Your task to perform on an android device: open app "Cash App" Image 0: 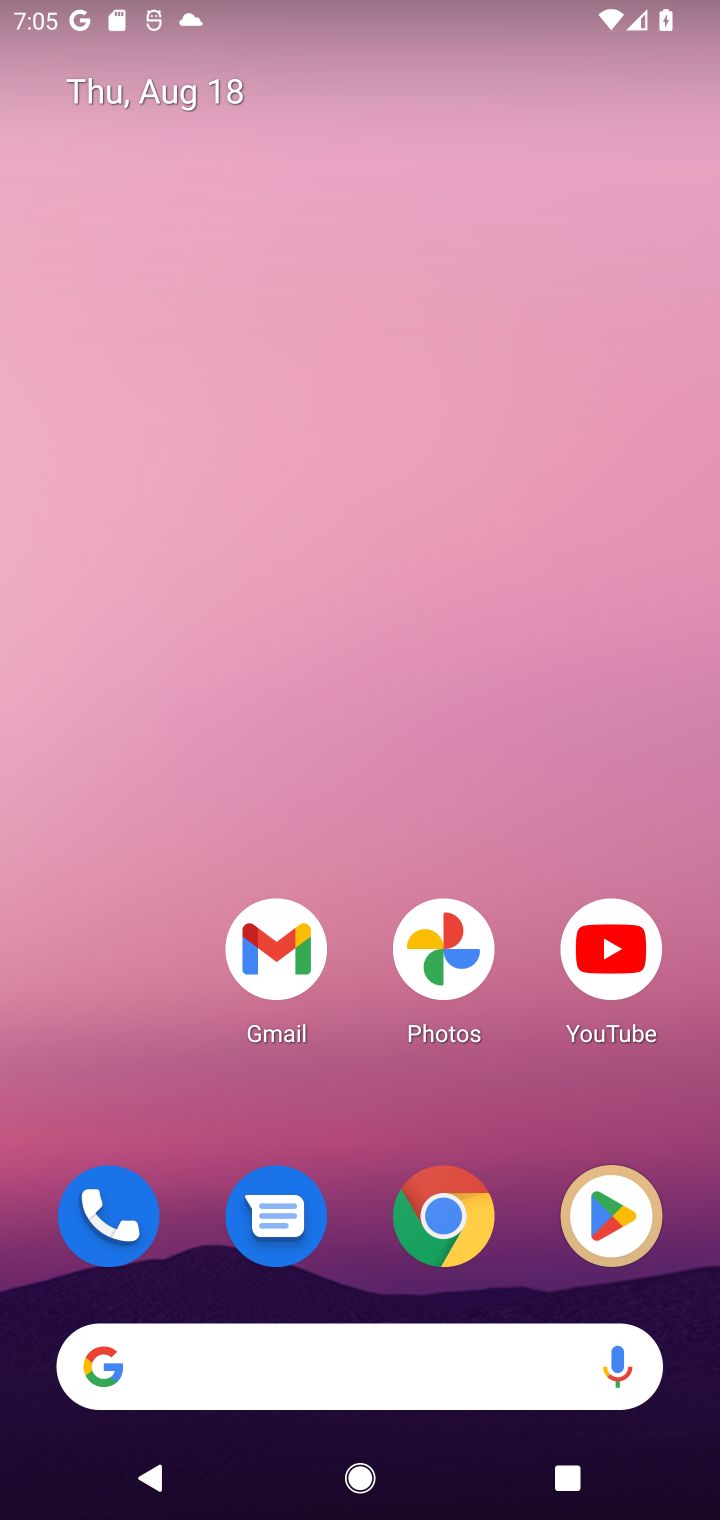
Step 0: click (610, 1211)
Your task to perform on an android device: open app "Cash App" Image 1: 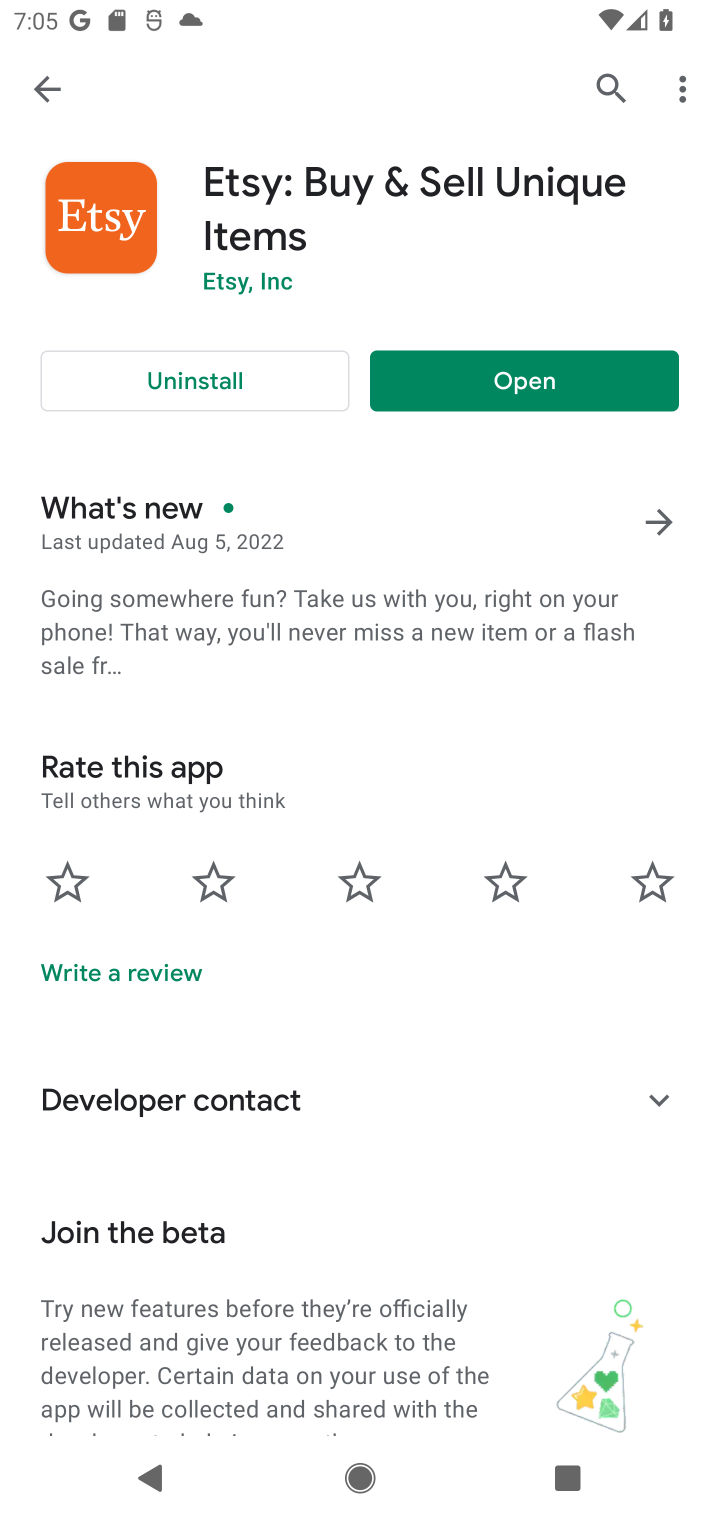
Step 1: click (600, 78)
Your task to perform on an android device: open app "Cash App" Image 2: 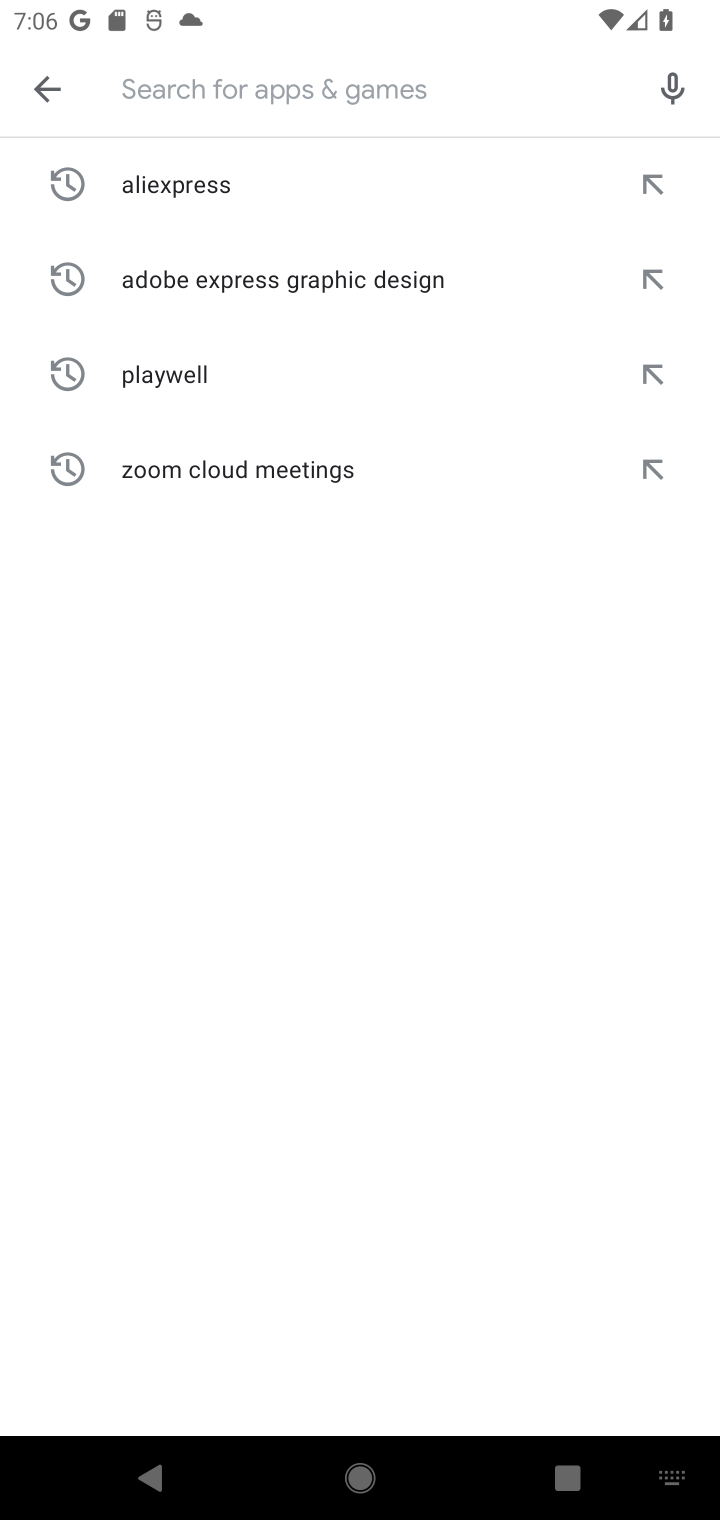
Step 2: type "Cash App"
Your task to perform on an android device: open app "Cash App" Image 3: 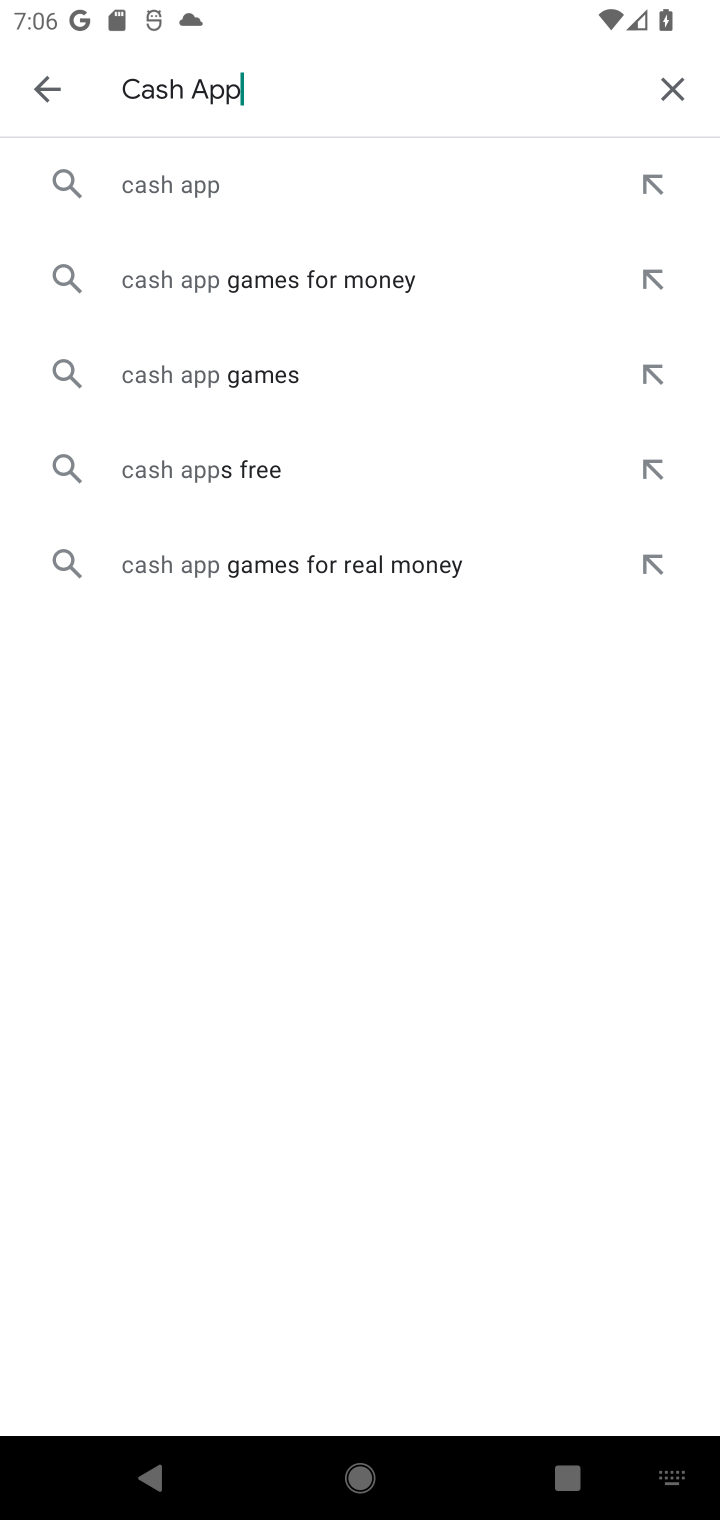
Step 3: click (174, 173)
Your task to perform on an android device: open app "Cash App" Image 4: 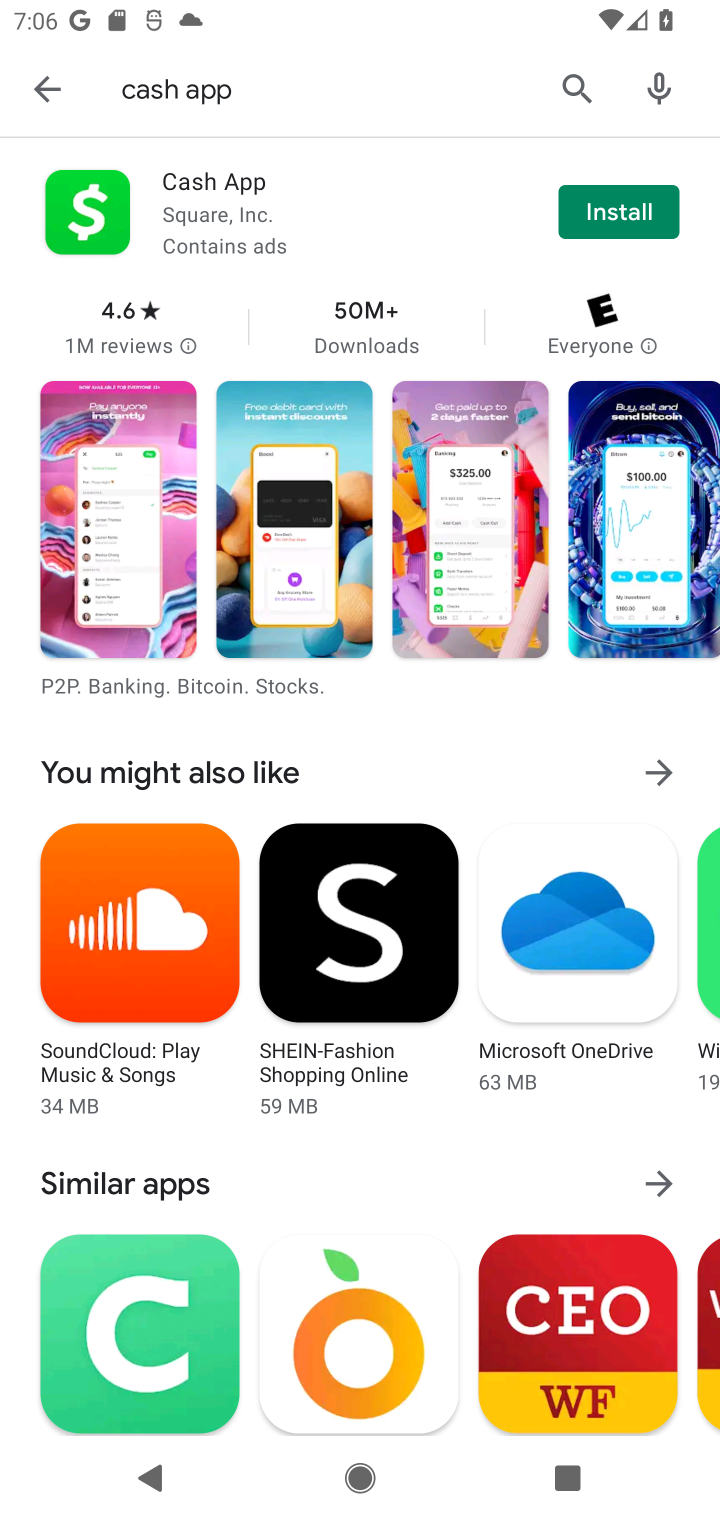
Step 4: task complete